Your task to perform on an android device: turn on wifi Image 0: 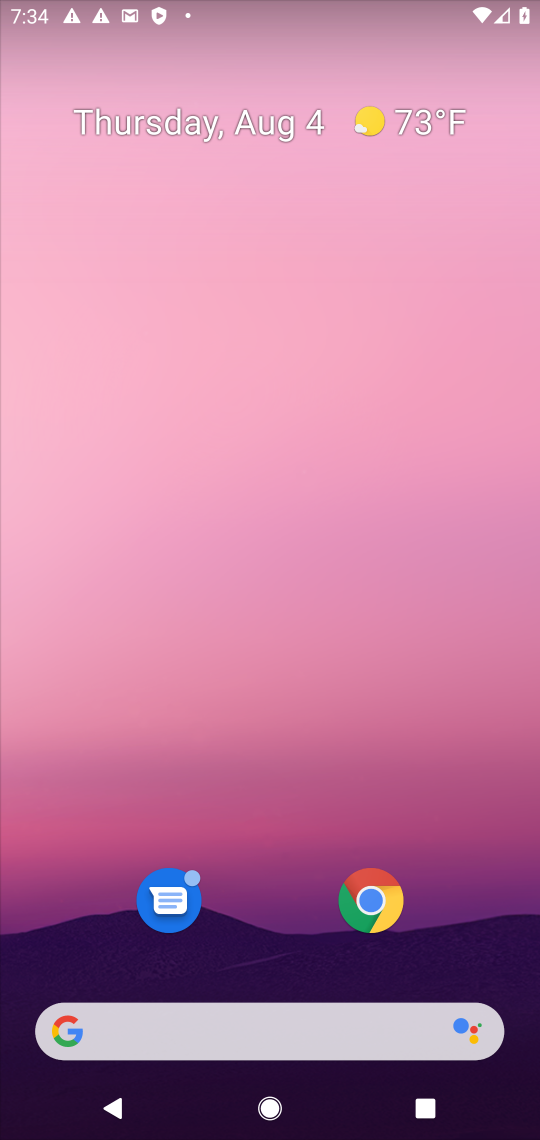
Step 0: drag from (255, 1029) to (491, 81)
Your task to perform on an android device: turn on wifi Image 1: 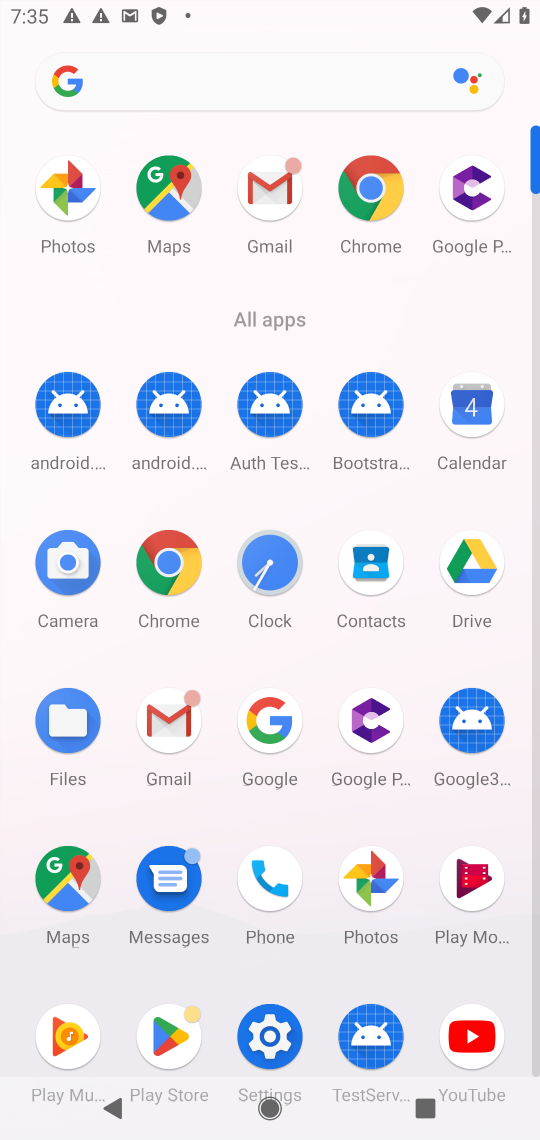
Step 1: click (264, 1030)
Your task to perform on an android device: turn on wifi Image 2: 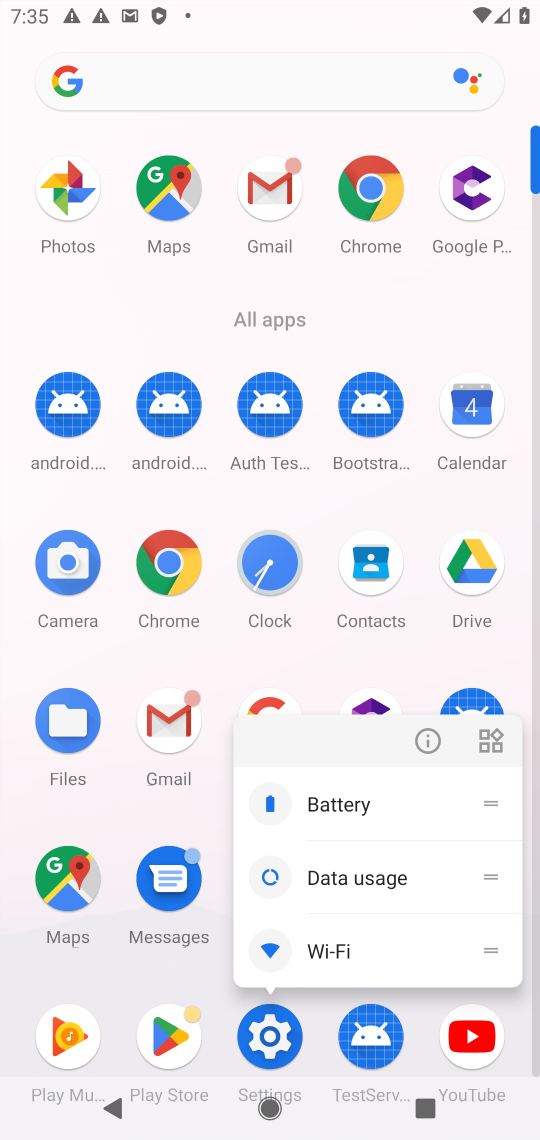
Step 2: click (267, 1036)
Your task to perform on an android device: turn on wifi Image 3: 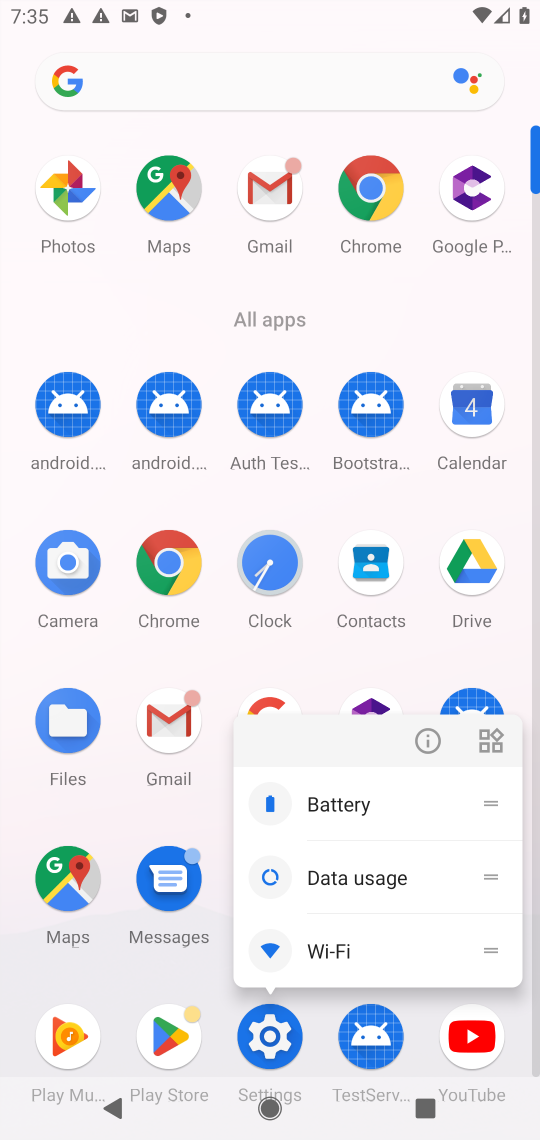
Step 3: click (267, 1036)
Your task to perform on an android device: turn on wifi Image 4: 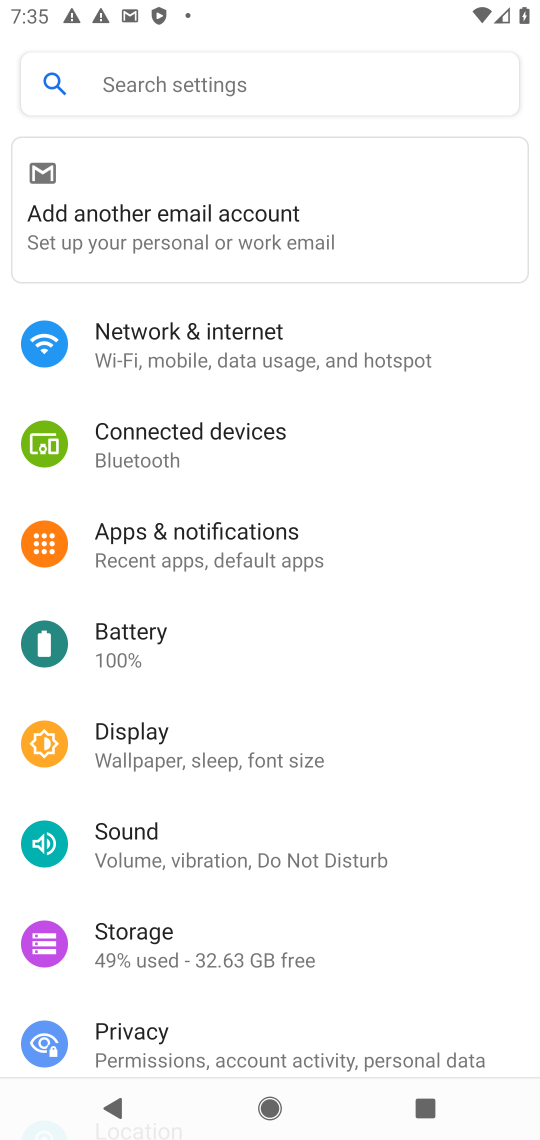
Step 4: click (217, 331)
Your task to perform on an android device: turn on wifi Image 5: 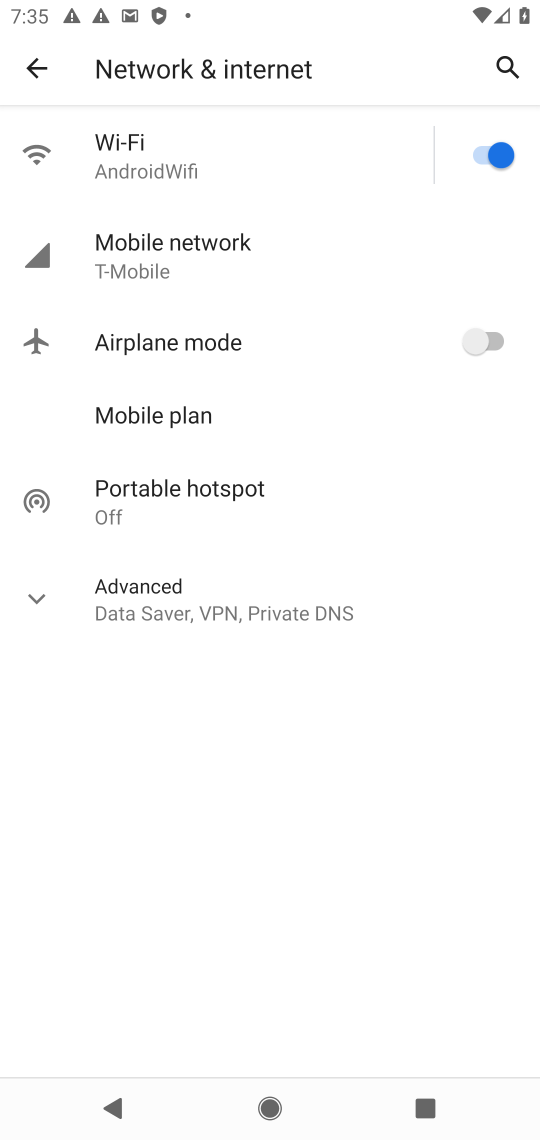
Step 5: task complete